Your task to perform on an android device: Open Android settings Image 0: 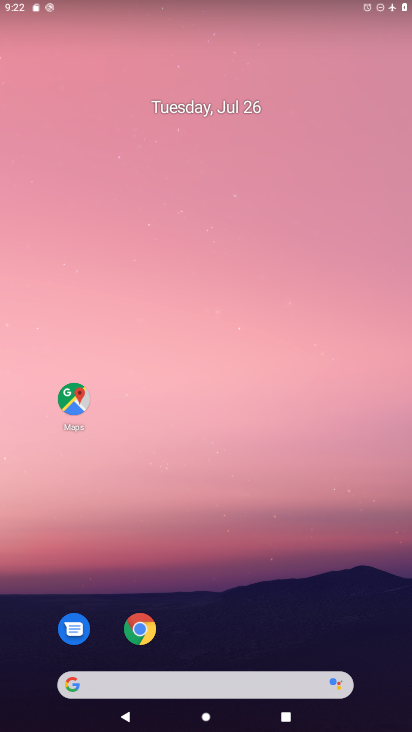
Step 0: drag from (175, 673) to (173, 110)
Your task to perform on an android device: Open Android settings Image 1: 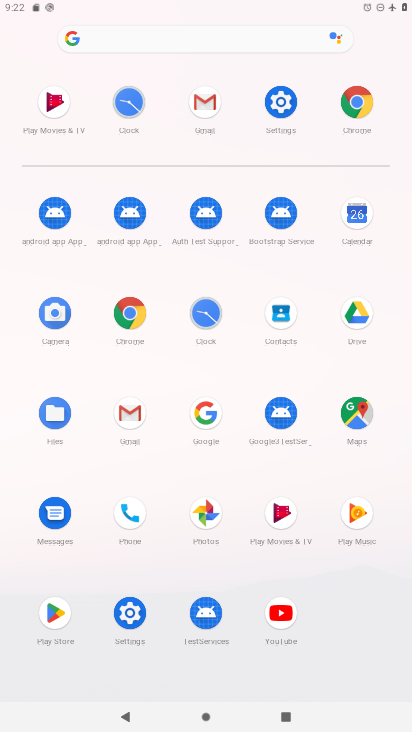
Step 1: click (290, 96)
Your task to perform on an android device: Open Android settings Image 2: 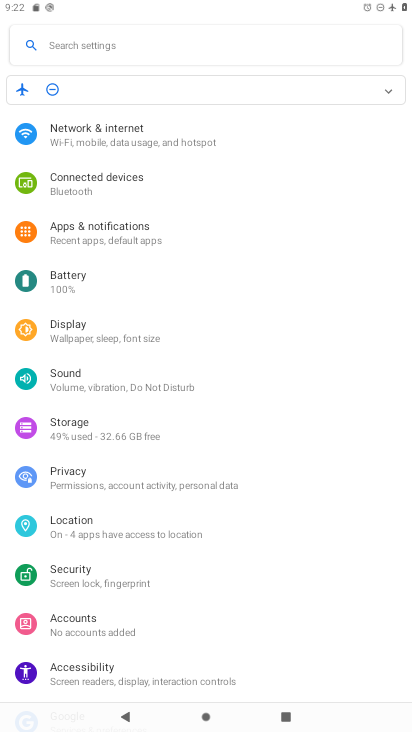
Step 2: task complete